Your task to perform on an android device: Open the Play Movies app and select the watchlist tab. Image 0: 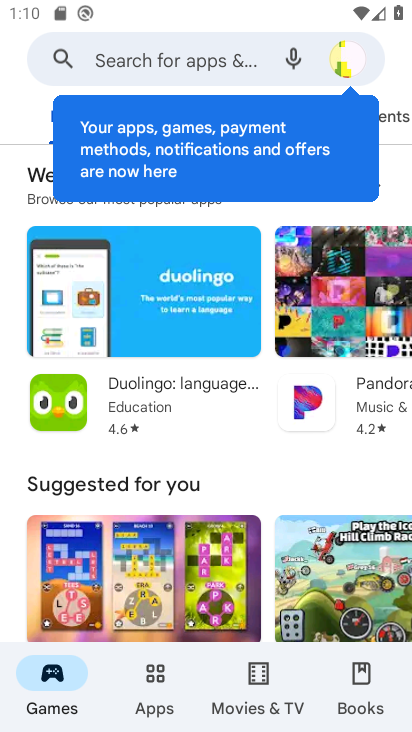
Step 0: press home button
Your task to perform on an android device: Open the Play Movies app and select the watchlist tab. Image 1: 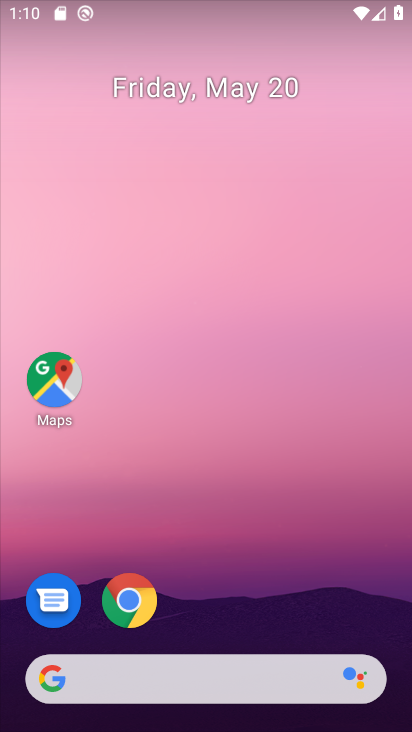
Step 1: drag from (270, 528) to (176, 76)
Your task to perform on an android device: Open the Play Movies app and select the watchlist tab. Image 2: 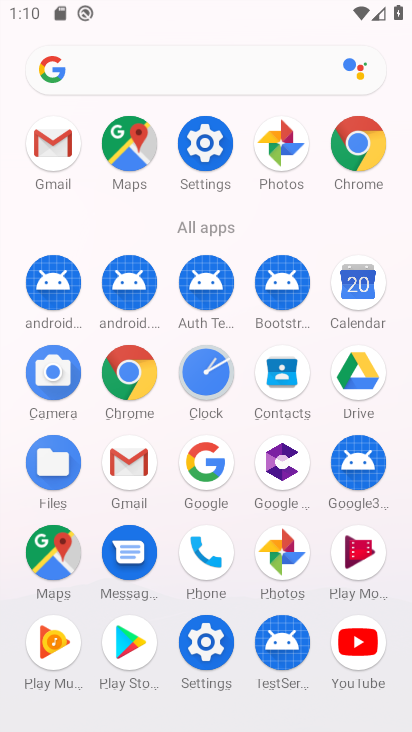
Step 2: click (369, 552)
Your task to perform on an android device: Open the Play Movies app and select the watchlist tab. Image 3: 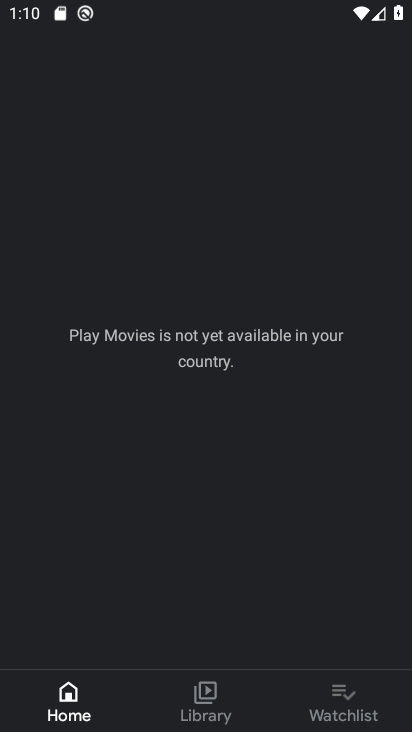
Step 3: click (351, 722)
Your task to perform on an android device: Open the Play Movies app and select the watchlist tab. Image 4: 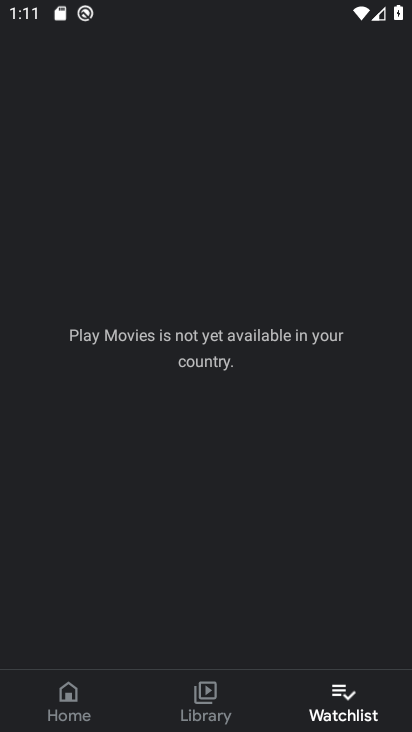
Step 4: task complete